Your task to perform on an android device: check battery use Image 0: 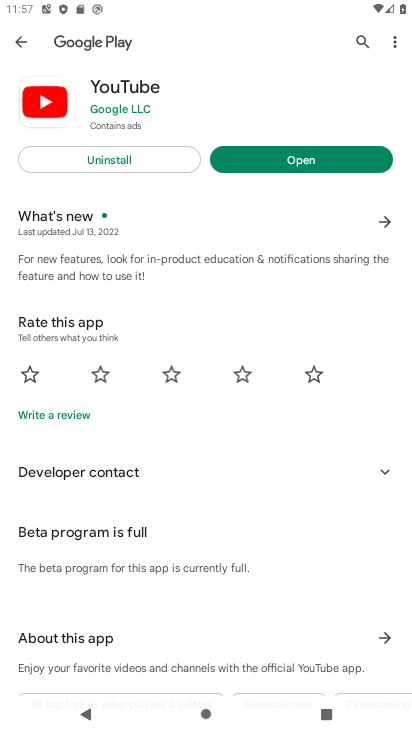
Step 0: press home button
Your task to perform on an android device: check battery use Image 1: 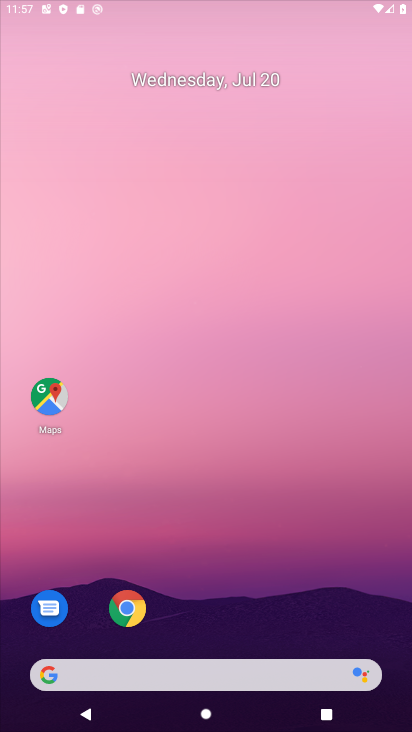
Step 1: drag from (353, 540) to (130, 10)
Your task to perform on an android device: check battery use Image 2: 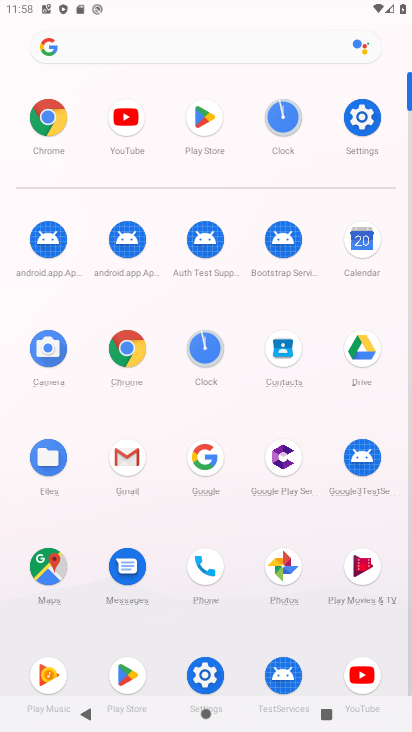
Step 2: click (201, 675)
Your task to perform on an android device: check battery use Image 3: 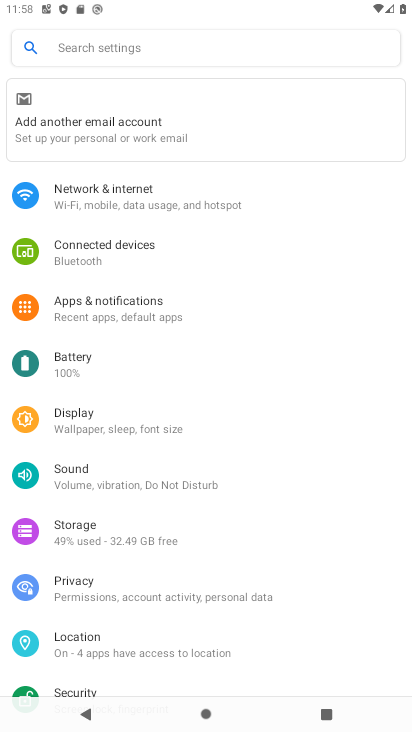
Step 3: click (65, 368)
Your task to perform on an android device: check battery use Image 4: 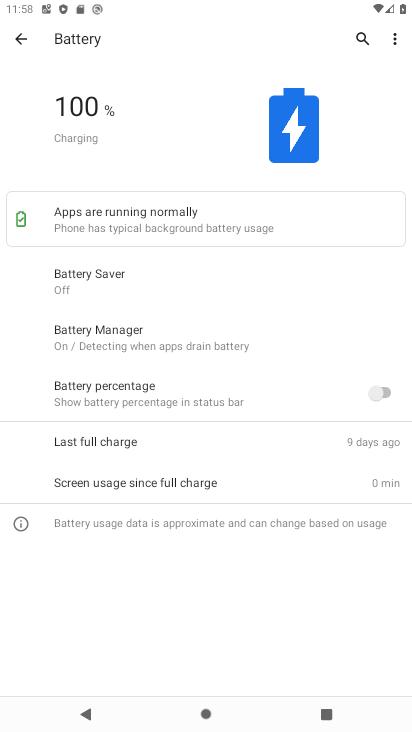
Step 4: click (393, 38)
Your task to perform on an android device: check battery use Image 5: 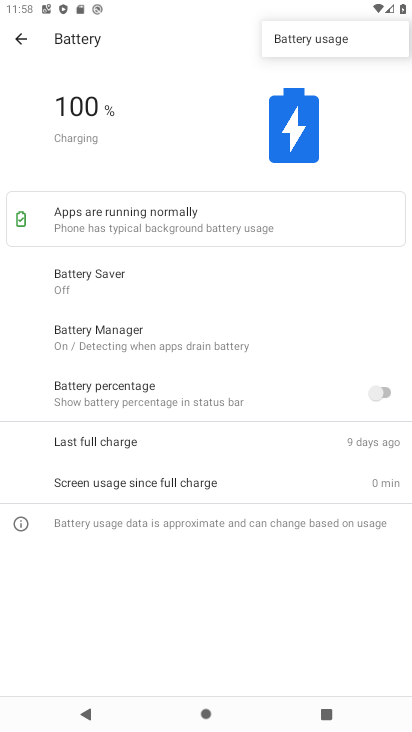
Step 5: click (297, 43)
Your task to perform on an android device: check battery use Image 6: 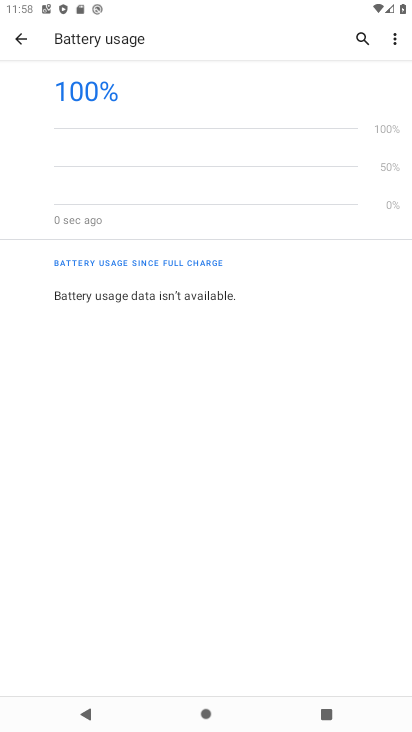
Step 6: task complete